Your task to perform on an android device: Set the phone to "Do not disturb". Image 0: 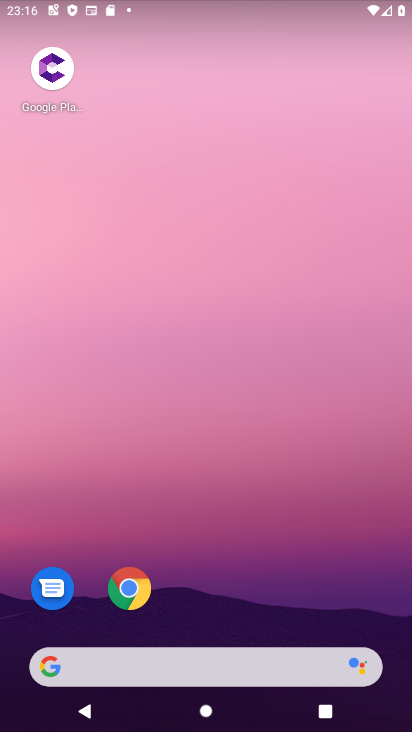
Step 0: drag from (229, 722) to (219, 26)
Your task to perform on an android device: Set the phone to "Do not disturb". Image 1: 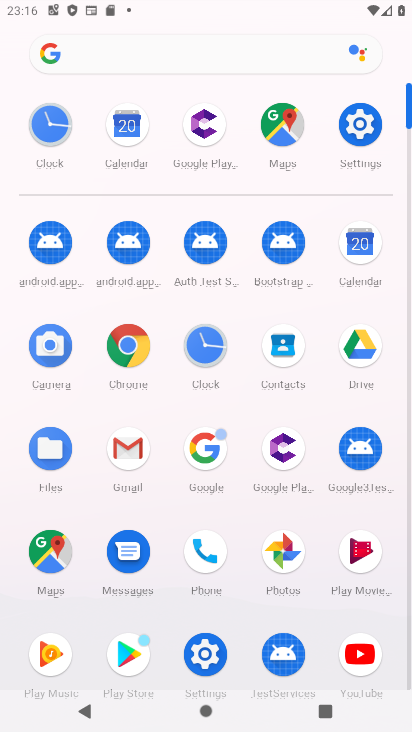
Step 1: click (357, 123)
Your task to perform on an android device: Set the phone to "Do not disturb". Image 2: 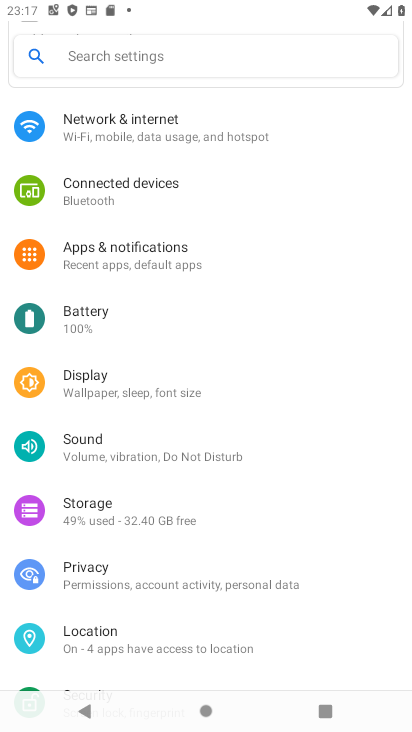
Step 2: click (126, 450)
Your task to perform on an android device: Set the phone to "Do not disturb". Image 3: 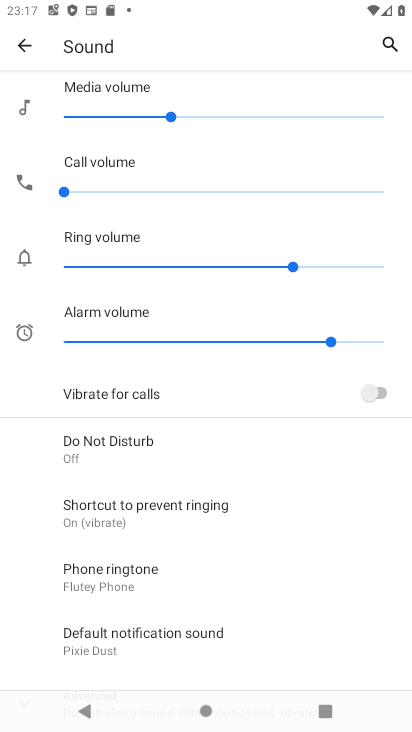
Step 3: click (101, 443)
Your task to perform on an android device: Set the phone to "Do not disturb". Image 4: 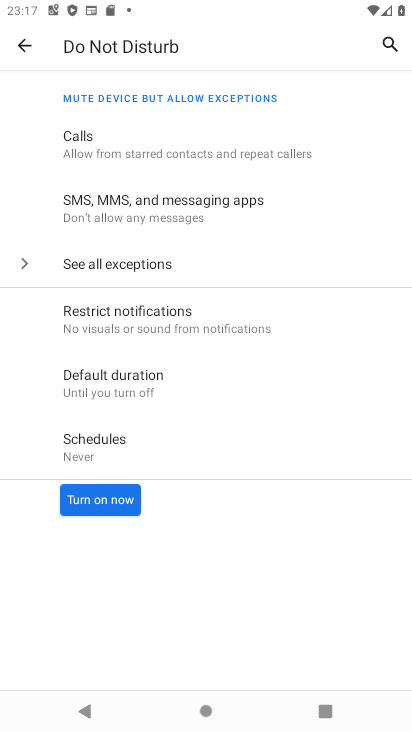
Step 4: click (104, 498)
Your task to perform on an android device: Set the phone to "Do not disturb". Image 5: 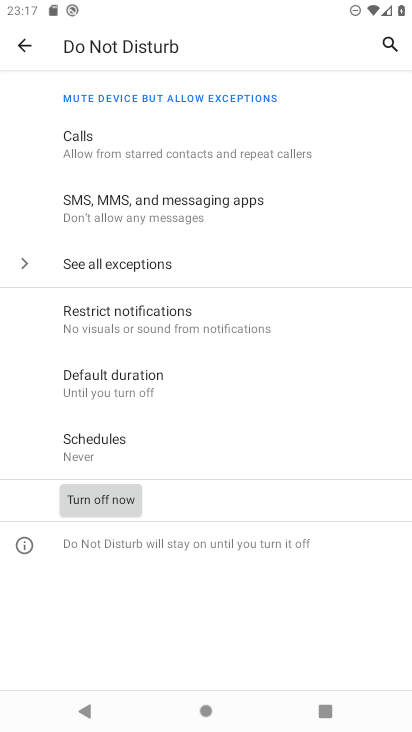
Step 5: task complete